Your task to perform on an android device: Go to calendar. Show me events next week Image 0: 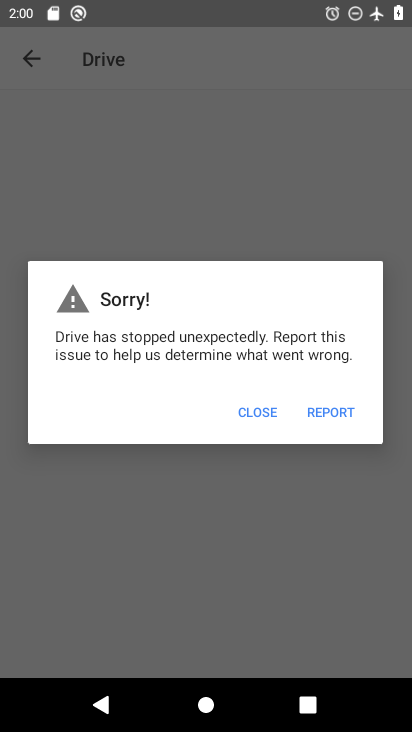
Step 0: press home button
Your task to perform on an android device: Go to calendar. Show me events next week Image 1: 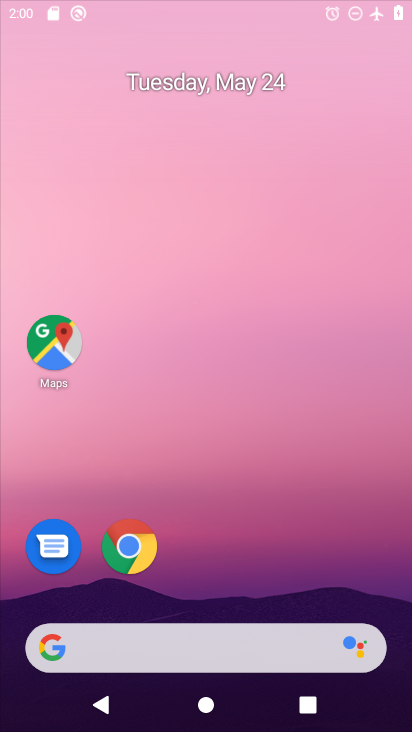
Step 1: drag from (263, 673) to (279, 60)
Your task to perform on an android device: Go to calendar. Show me events next week Image 2: 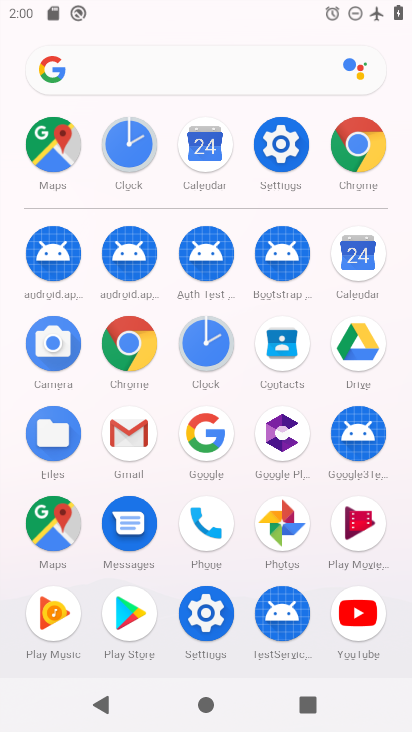
Step 2: click (360, 269)
Your task to perform on an android device: Go to calendar. Show me events next week Image 3: 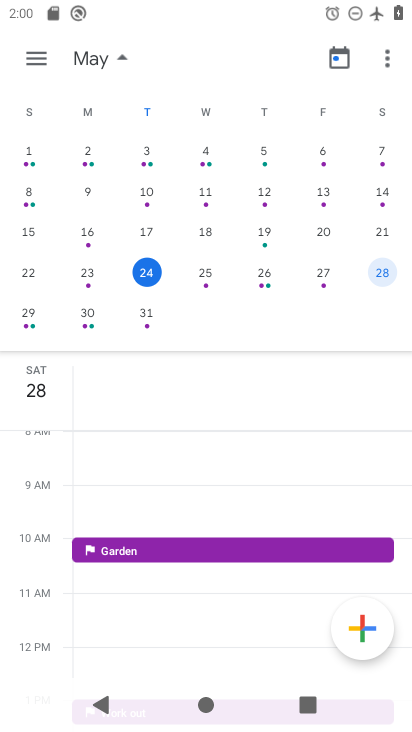
Step 3: click (92, 311)
Your task to perform on an android device: Go to calendar. Show me events next week Image 4: 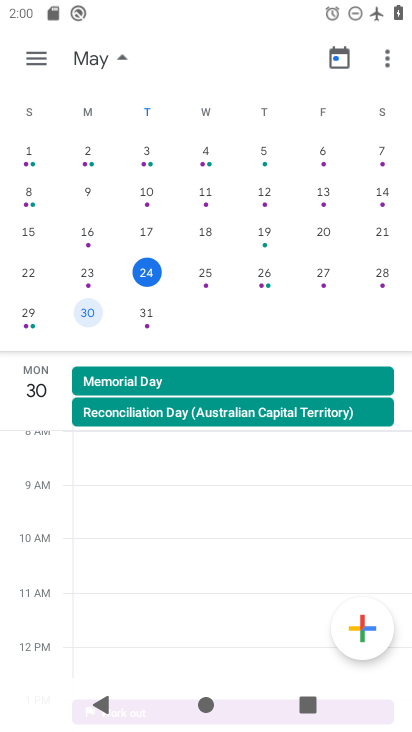
Step 4: click (34, 50)
Your task to perform on an android device: Go to calendar. Show me events next week Image 5: 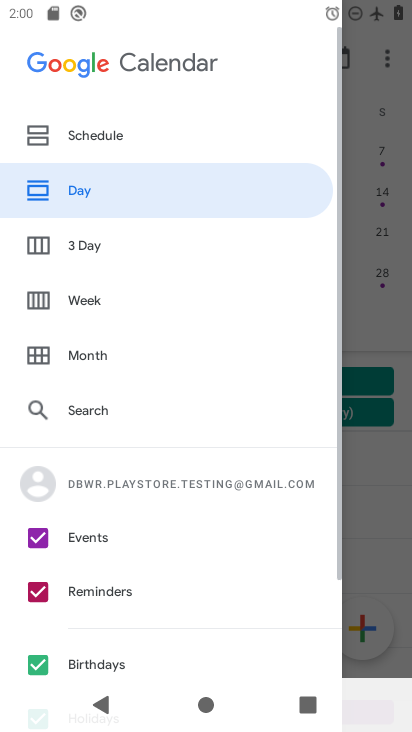
Step 5: click (83, 306)
Your task to perform on an android device: Go to calendar. Show me events next week Image 6: 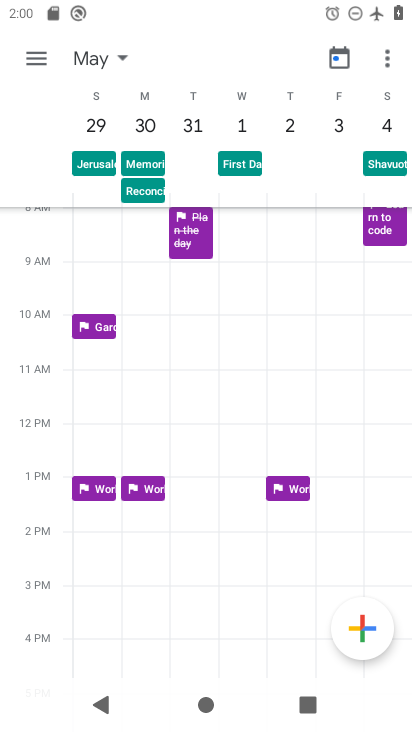
Step 6: task complete